Your task to perform on an android device: check android version Image 0: 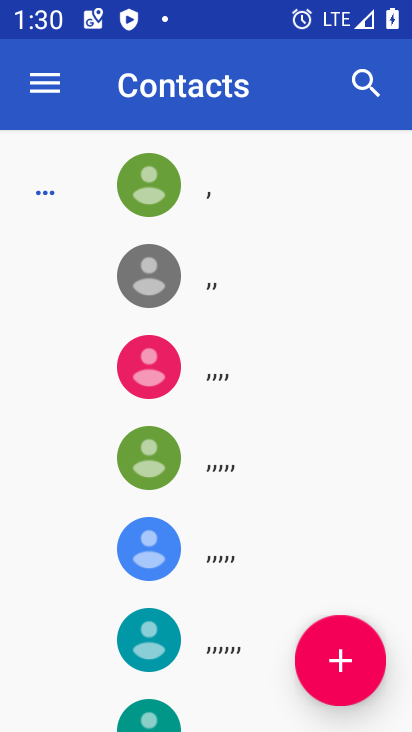
Step 0: press home button
Your task to perform on an android device: check android version Image 1: 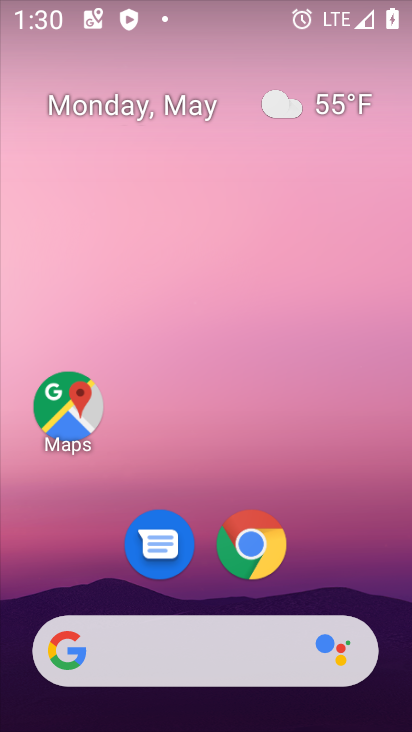
Step 1: drag from (393, 652) to (332, 120)
Your task to perform on an android device: check android version Image 2: 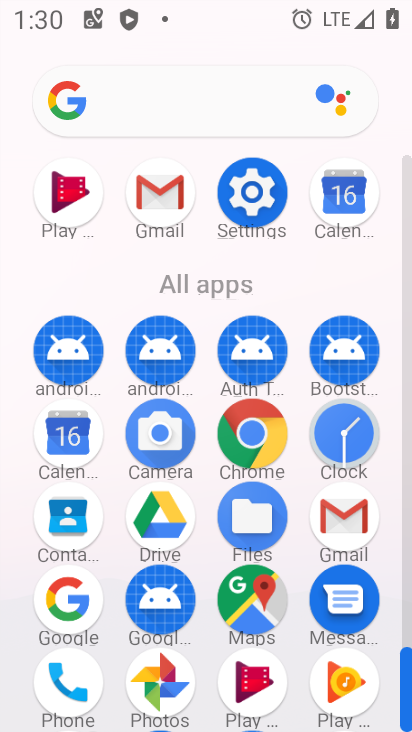
Step 2: drag from (408, 632) to (410, 588)
Your task to perform on an android device: check android version Image 3: 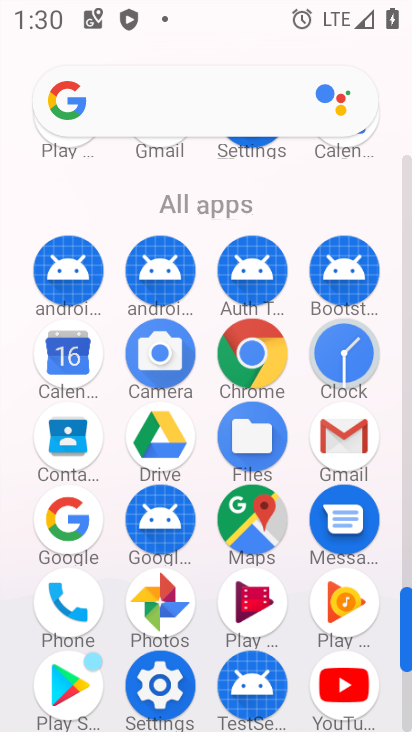
Step 3: click (162, 686)
Your task to perform on an android device: check android version Image 4: 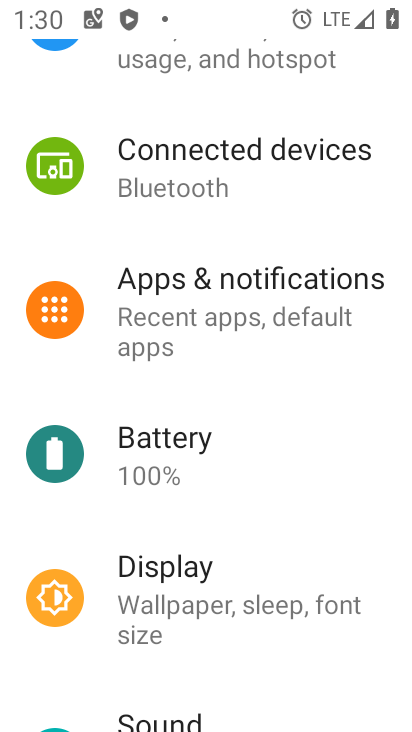
Step 4: drag from (367, 684) to (366, 310)
Your task to perform on an android device: check android version Image 5: 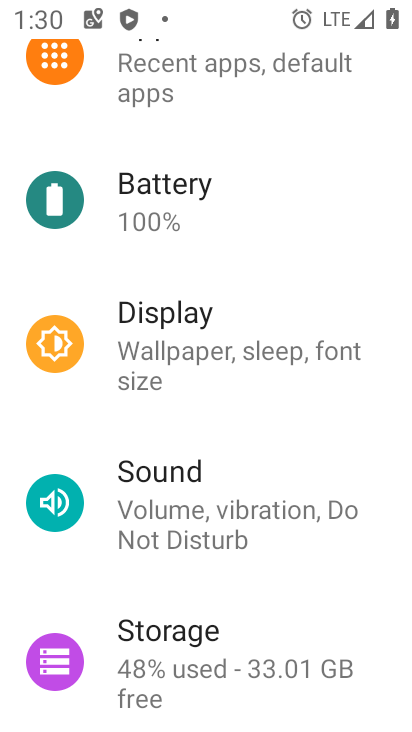
Step 5: drag from (364, 657) to (388, 162)
Your task to perform on an android device: check android version Image 6: 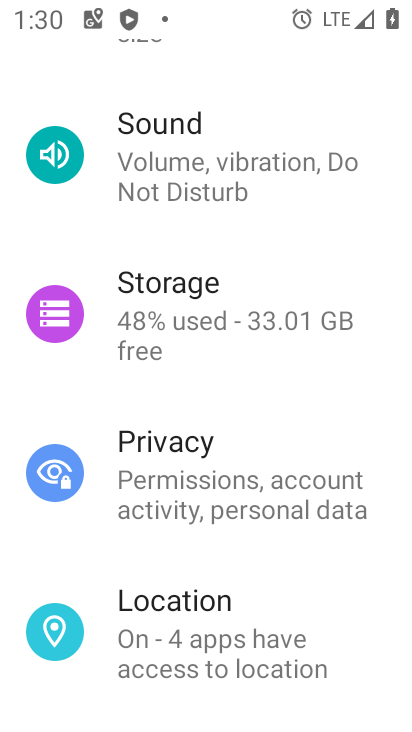
Step 6: drag from (338, 697) to (389, 223)
Your task to perform on an android device: check android version Image 7: 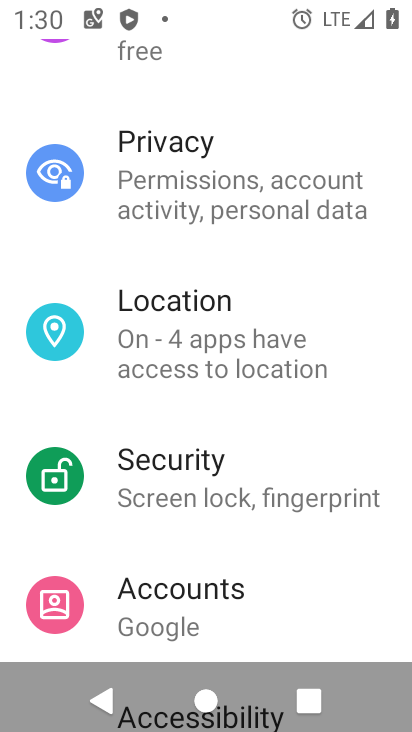
Step 7: drag from (337, 622) to (382, 191)
Your task to perform on an android device: check android version Image 8: 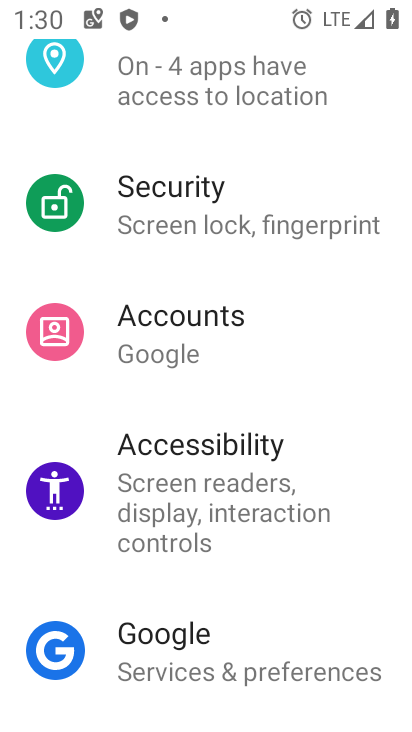
Step 8: drag from (346, 685) to (364, 220)
Your task to perform on an android device: check android version Image 9: 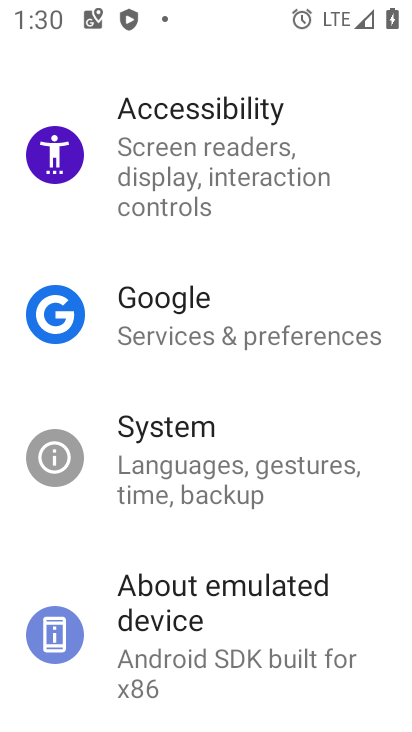
Step 9: drag from (345, 685) to (381, 327)
Your task to perform on an android device: check android version Image 10: 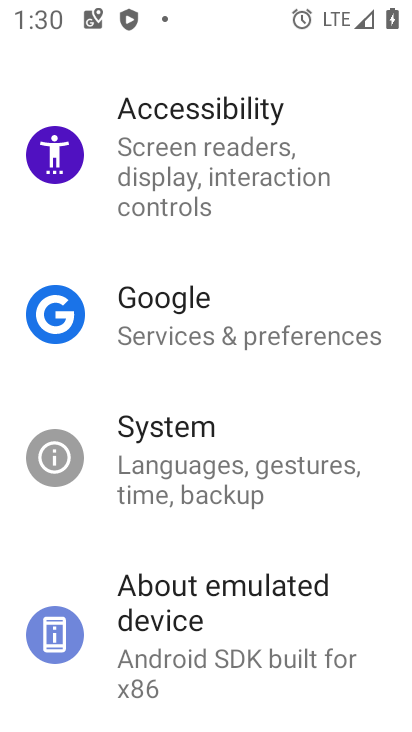
Step 10: click (159, 617)
Your task to perform on an android device: check android version Image 11: 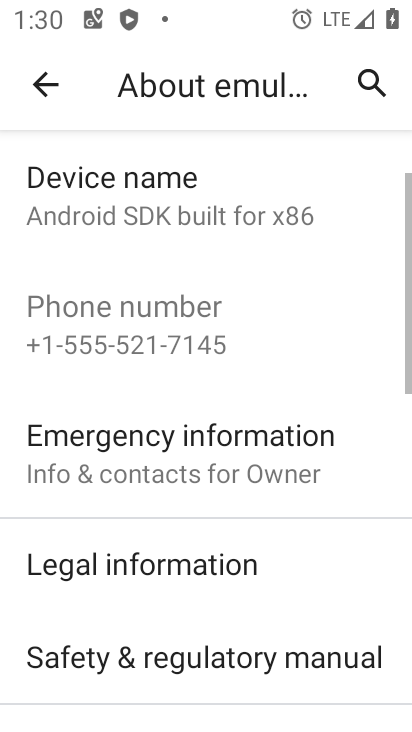
Step 11: drag from (363, 612) to (366, 176)
Your task to perform on an android device: check android version Image 12: 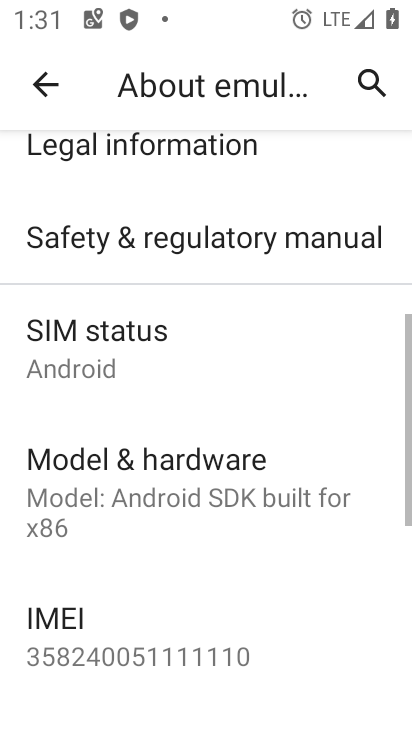
Step 12: drag from (333, 676) to (372, 140)
Your task to perform on an android device: check android version Image 13: 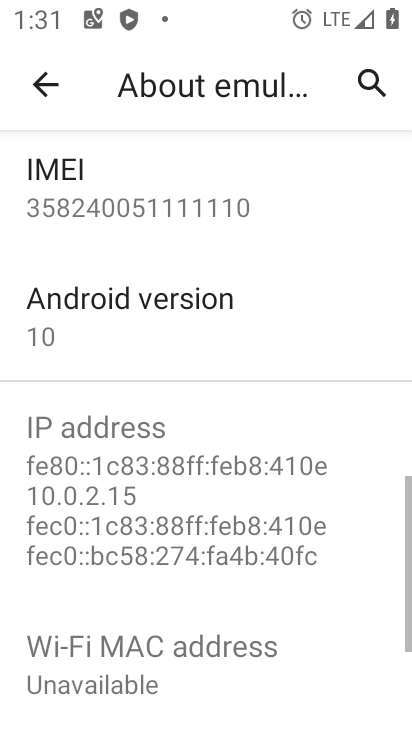
Step 13: click (50, 300)
Your task to perform on an android device: check android version Image 14: 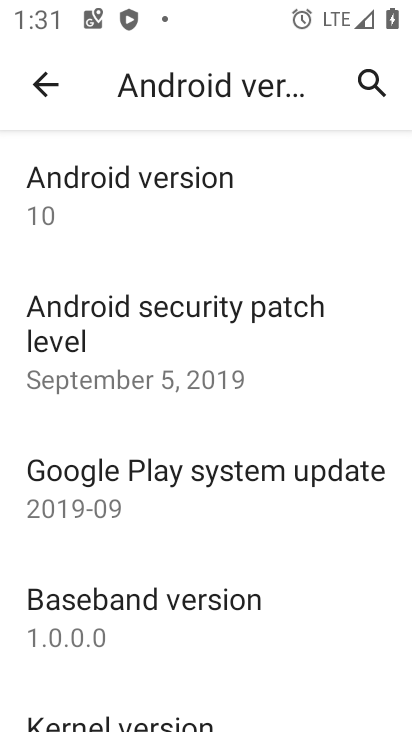
Step 14: drag from (318, 678) to (352, 537)
Your task to perform on an android device: check android version Image 15: 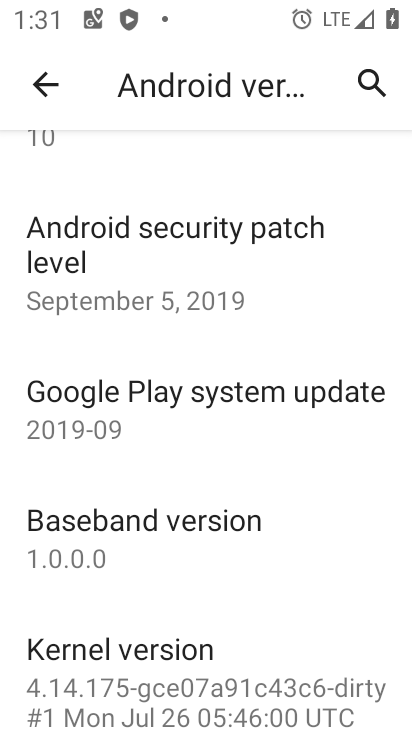
Step 15: drag from (301, 313) to (292, 611)
Your task to perform on an android device: check android version Image 16: 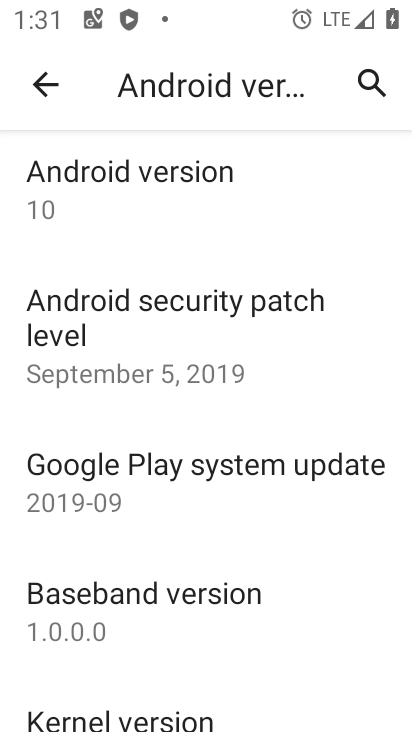
Step 16: click (74, 159)
Your task to perform on an android device: check android version Image 17: 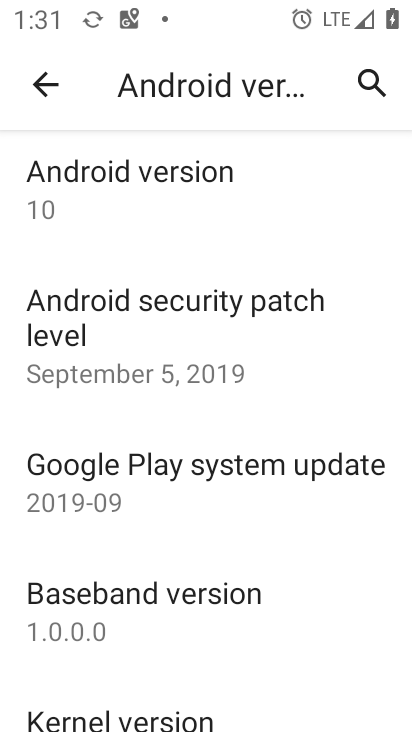
Step 17: task complete